Your task to perform on an android device: toggle data saver in the chrome app Image 0: 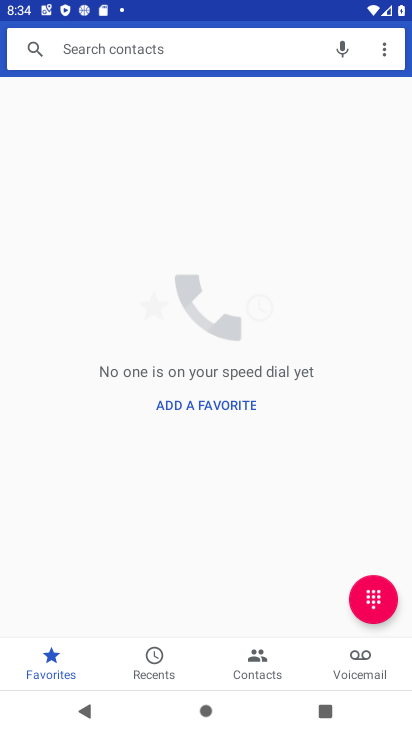
Step 0: press home button
Your task to perform on an android device: toggle data saver in the chrome app Image 1: 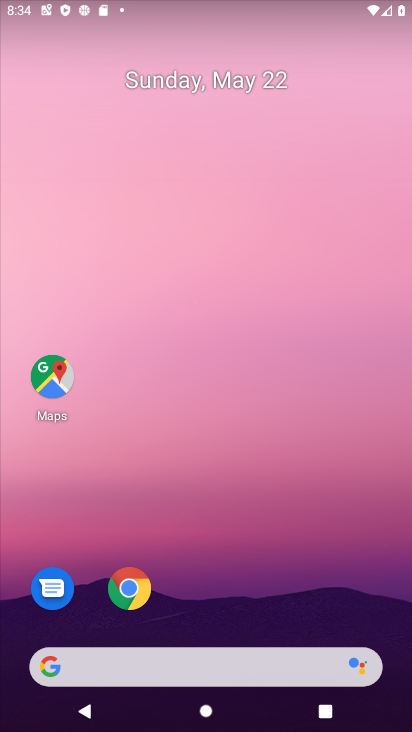
Step 1: click (134, 593)
Your task to perform on an android device: toggle data saver in the chrome app Image 2: 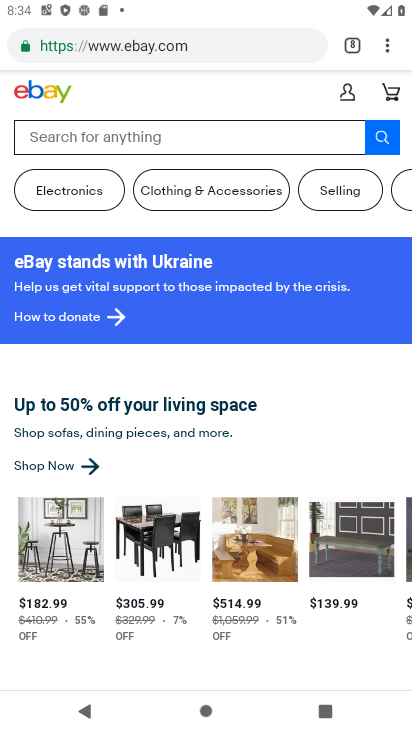
Step 2: click (386, 43)
Your task to perform on an android device: toggle data saver in the chrome app Image 3: 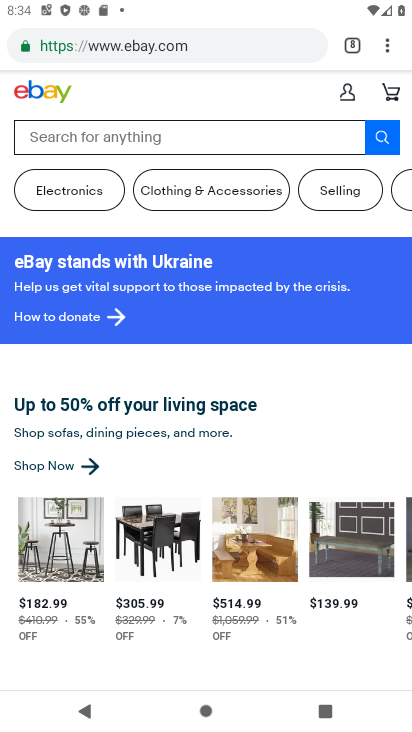
Step 3: click (386, 43)
Your task to perform on an android device: toggle data saver in the chrome app Image 4: 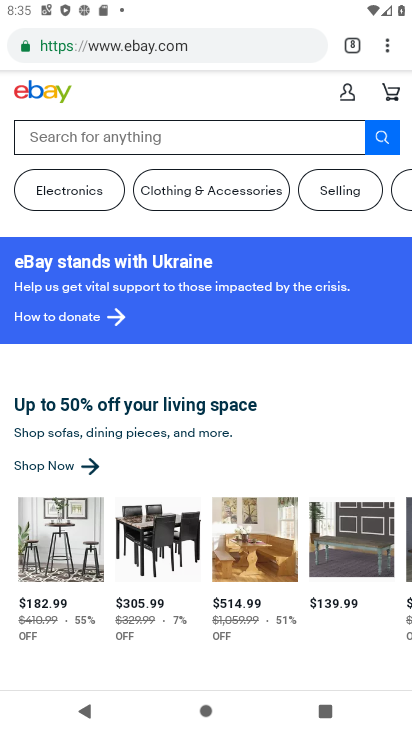
Step 4: click (389, 43)
Your task to perform on an android device: toggle data saver in the chrome app Image 5: 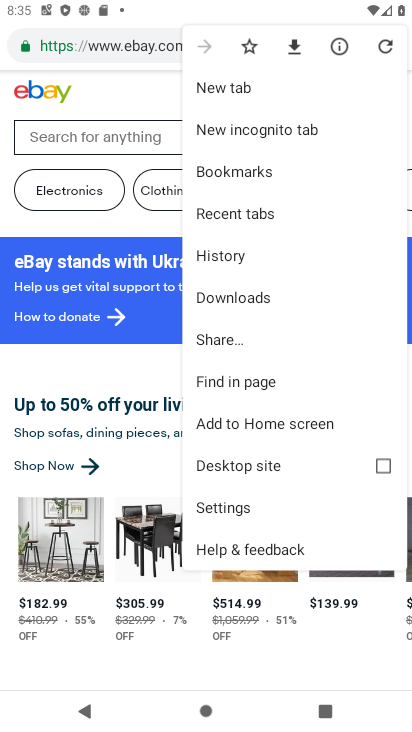
Step 5: click (235, 508)
Your task to perform on an android device: toggle data saver in the chrome app Image 6: 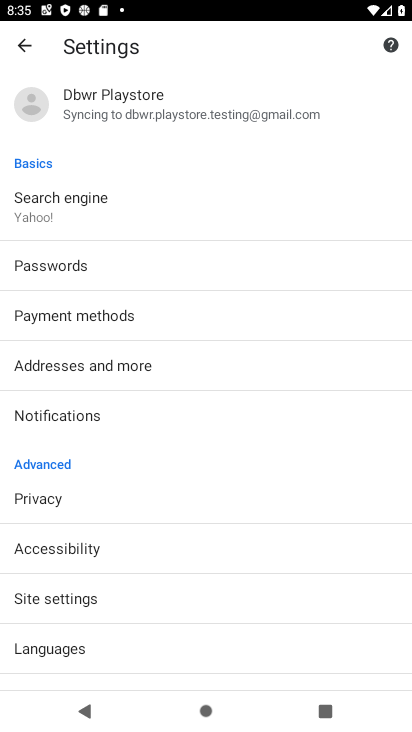
Step 6: drag from (225, 434) to (240, 16)
Your task to perform on an android device: toggle data saver in the chrome app Image 7: 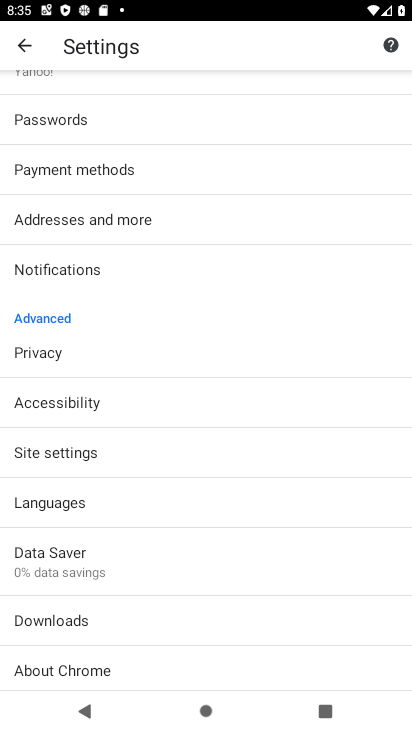
Step 7: click (84, 553)
Your task to perform on an android device: toggle data saver in the chrome app Image 8: 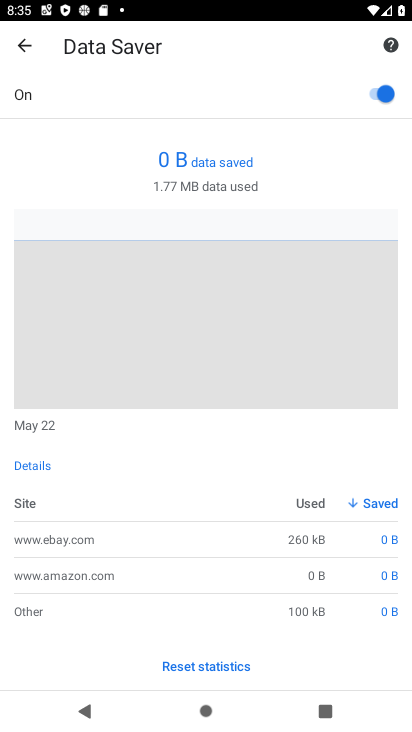
Step 8: click (369, 92)
Your task to perform on an android device: toggle data saver in the chrome app Image 9: 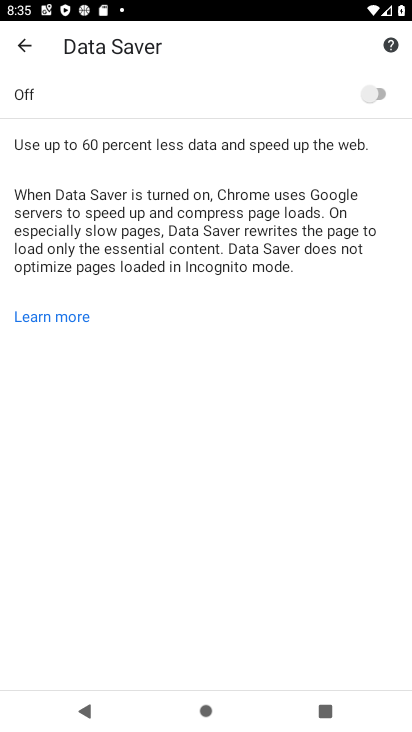
Step 9: task complete